Your task to perform on an android device: Open the stopwatch Image 0: 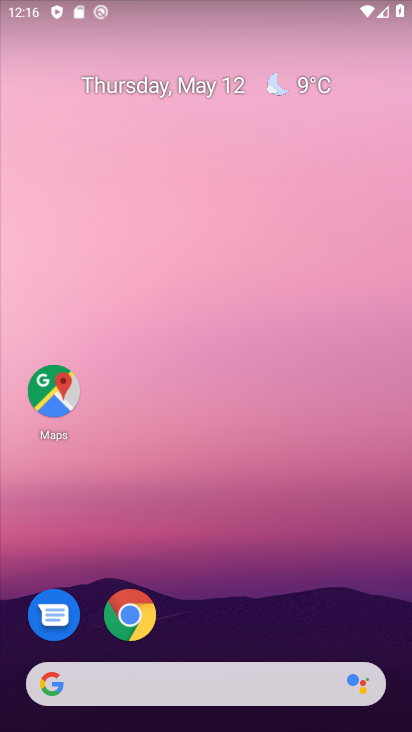
Step 0: drag from (239, 558) to (260, 25)
Your task to perform on an android device: Open the stopwatch Image 1: 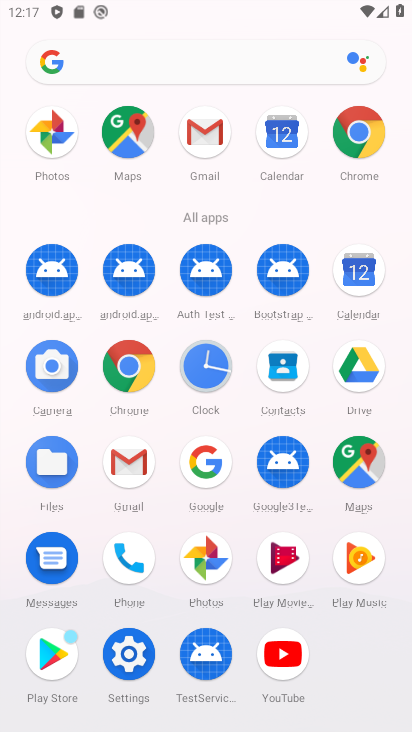
Step 1: click (205, 364)
Your task to perform on an android device: Open the stopwatch Image 2: 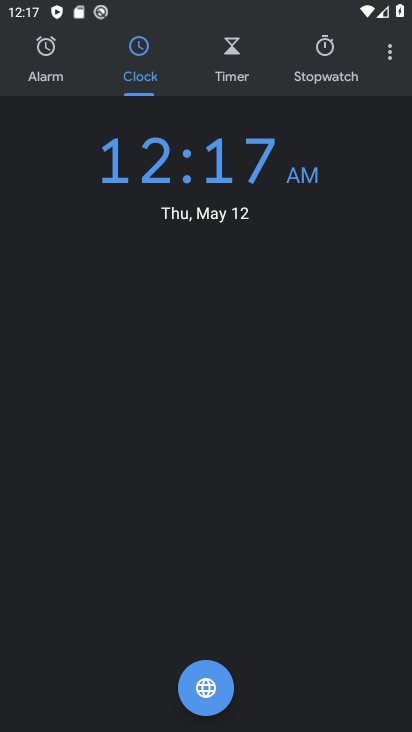
Step 2: click (330, 50)
Your task to perform on an android device: Open the stopwatch Image 3: 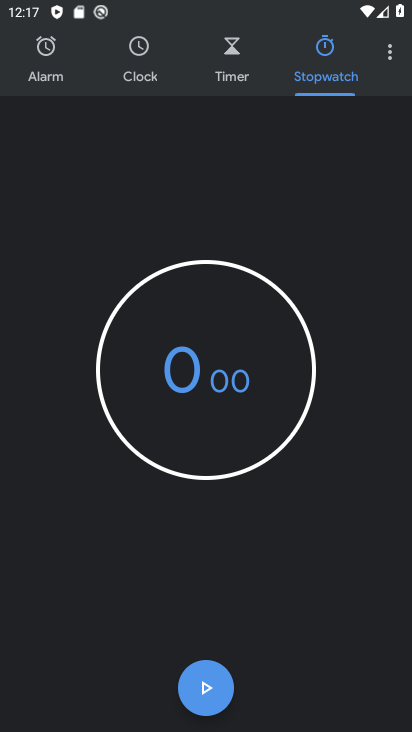
Step 3: task complete